Your task to perform on an android device: Clear the shopping cart on costco.com. Add "razer deathadder" to the cart on costco.com, then select checkout. Image 0: 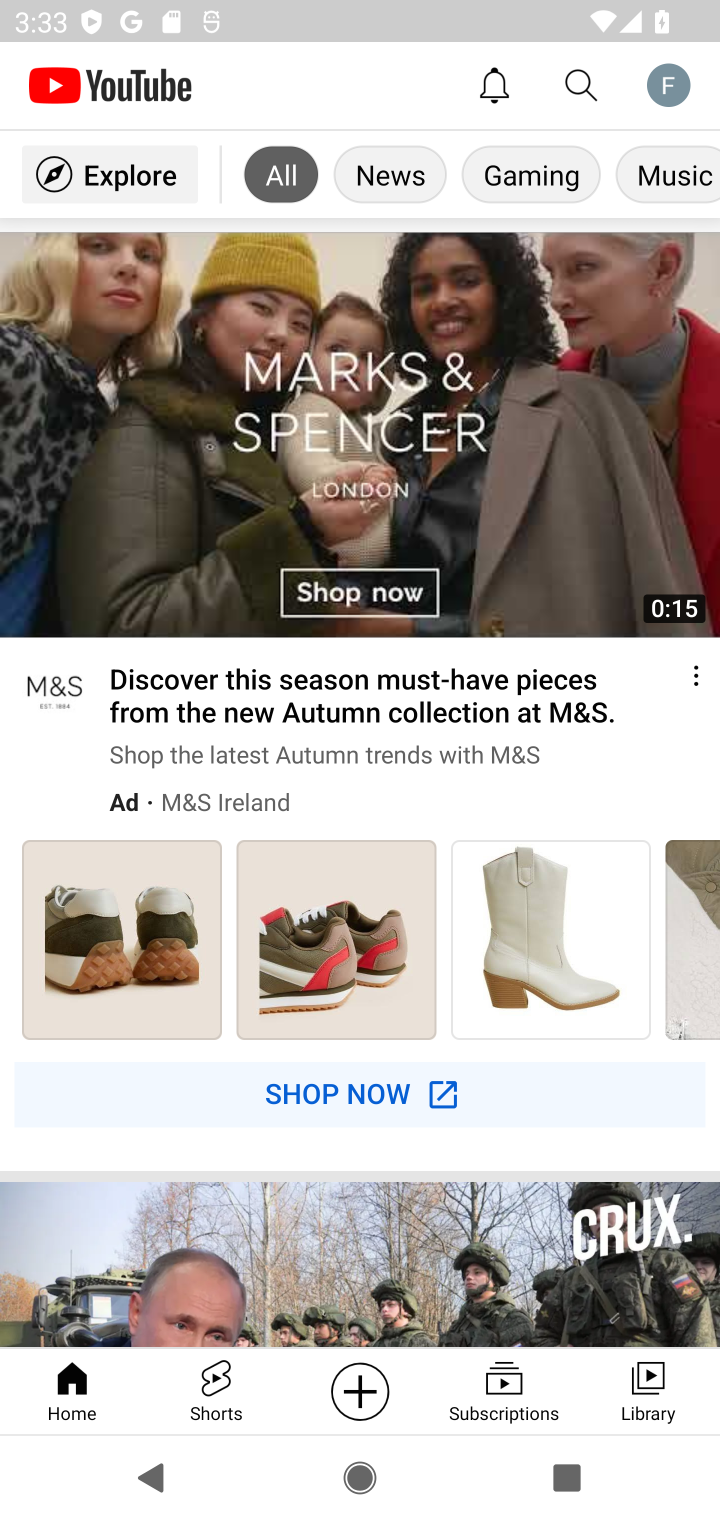
Step 0: press home button
Your task to perform on an android device: Clear the shopping cart on costco.com. Add "razer deathadder" to the cart on costco.com, then select checkout. Image 1: 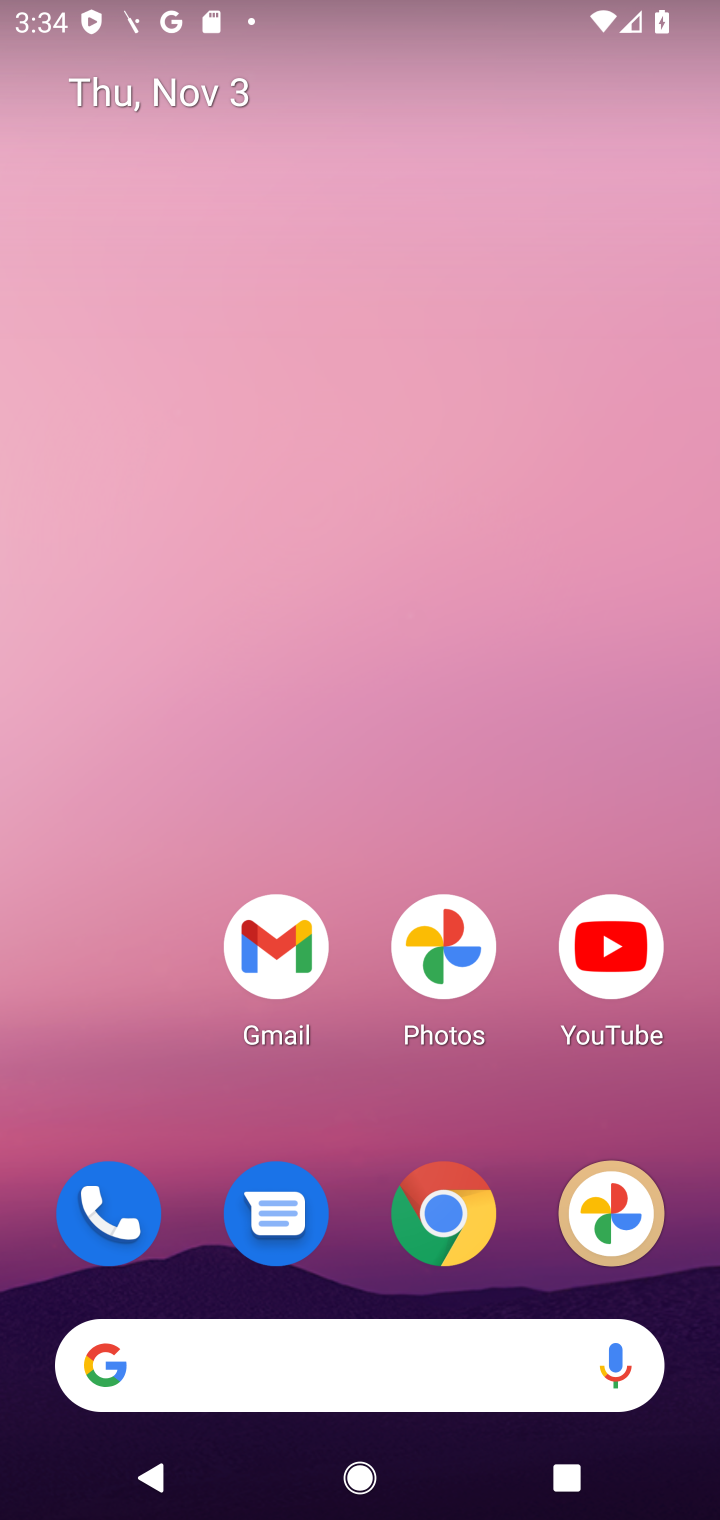
Step 1: click (464, 1198)
Your task to perform on an android device: Clear the shopping cart on costco.com. Add "razer deathadder" to the cart on costco.com, then select checkout. Image 2: 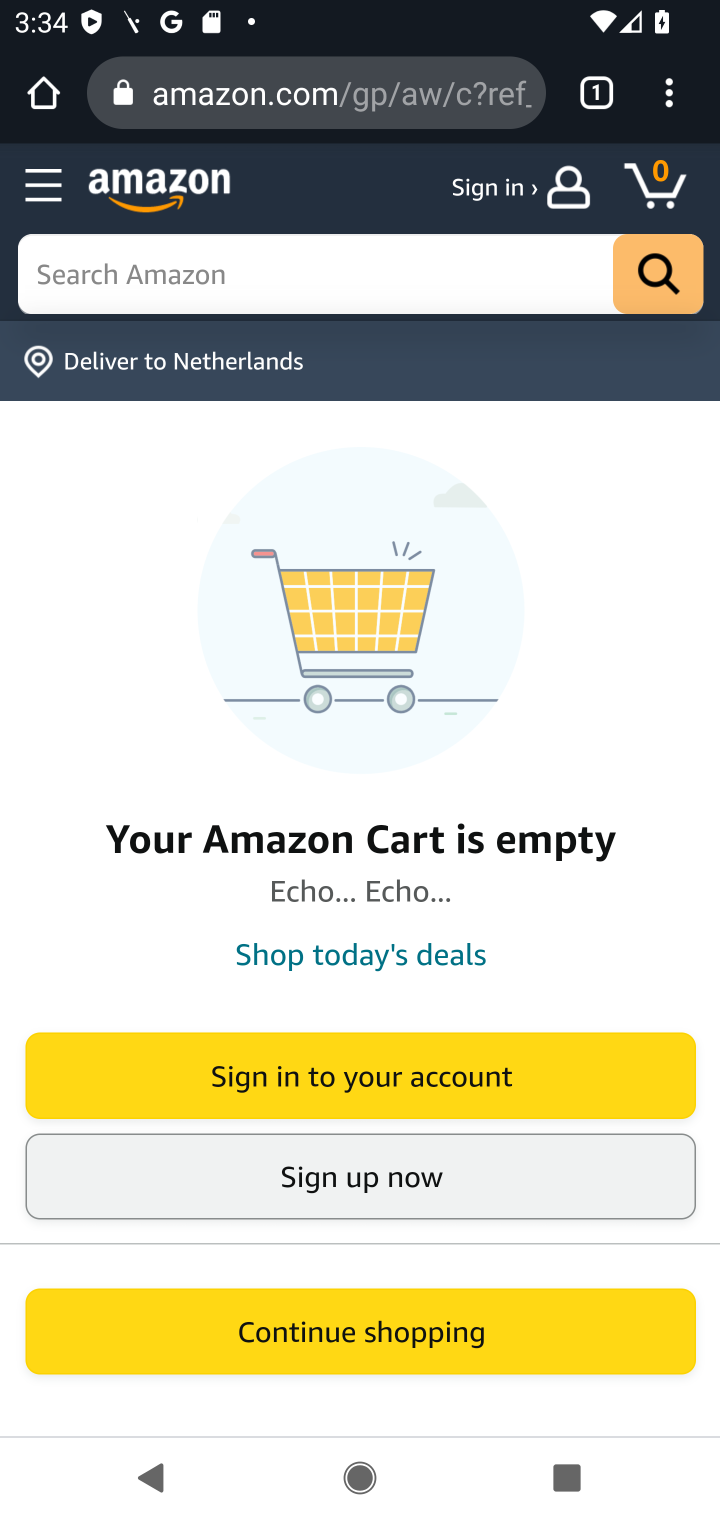
Step 2: click (274, 116)
Your task to perform on an android device: Clear the shopping cart on costco.com. Add "razer deathadder" to the cart on costco.com, then select checkout. Image 3: 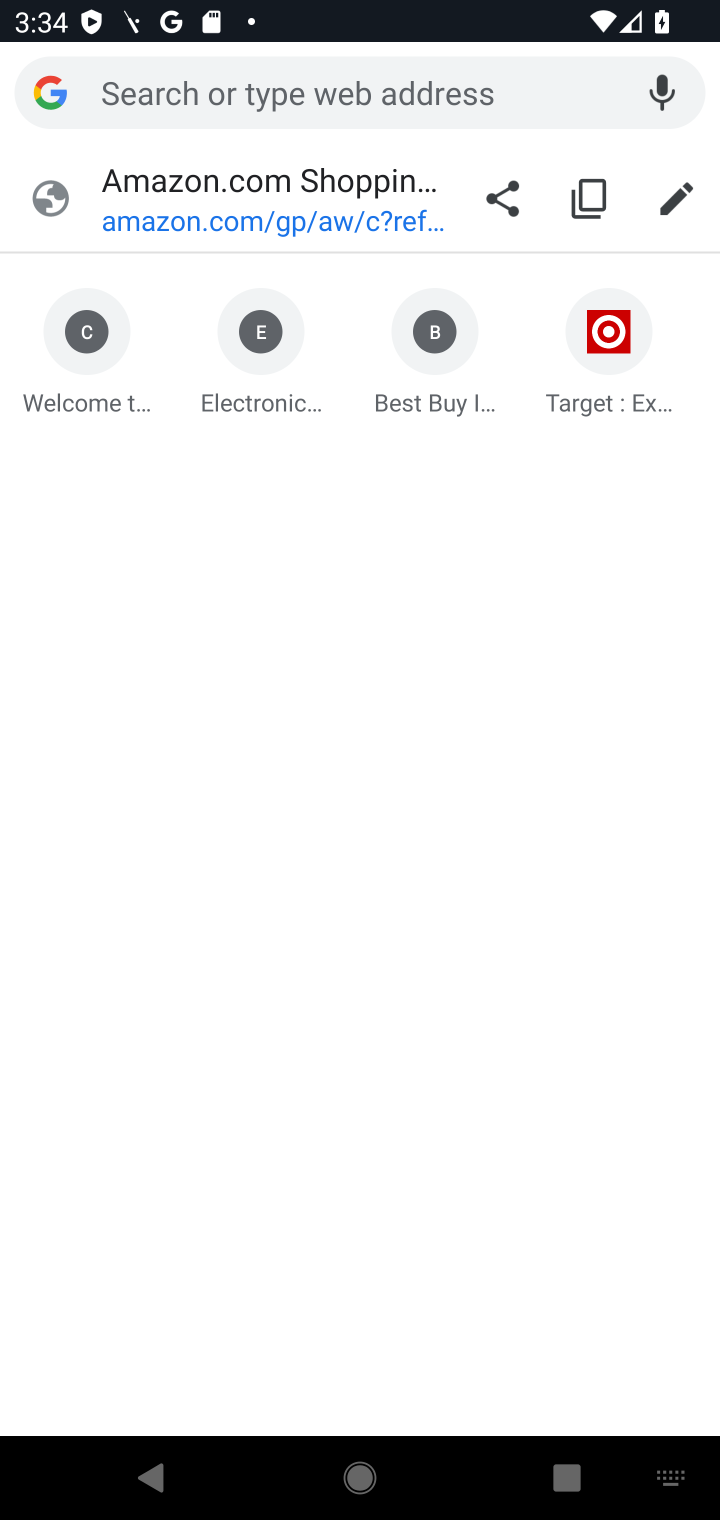
Step 3: type "costco.com"
Your task to perform on an android device: Clear the shopping cart on costco.com. Add "razer deathadder" to the cart on costco.com, then select checkout. Image 4: 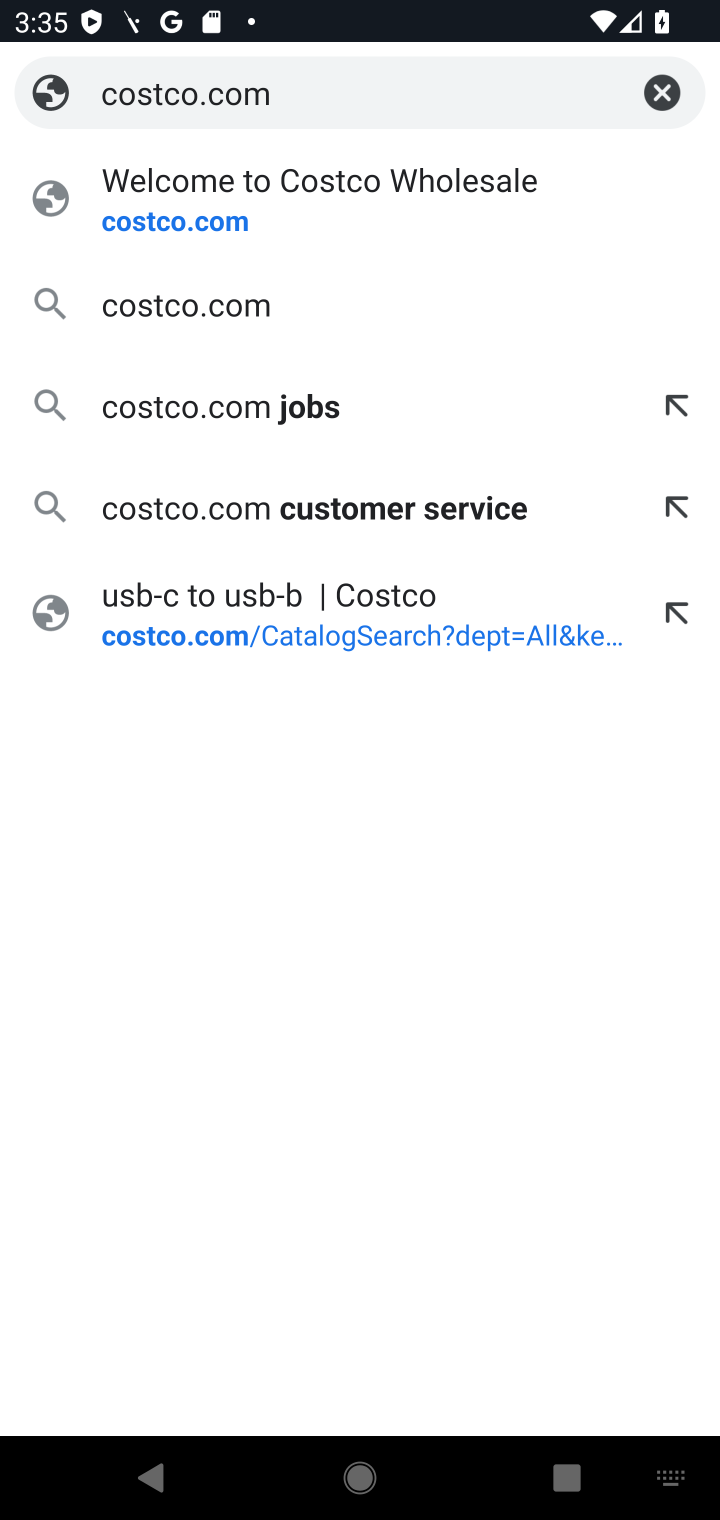
Step 4: click (208, 228)
Your task to perform on an android device: Clear the shopping cart on costco.com. Add "razer deathadder" to the cart on costco.com, then select checkout. Image 5: 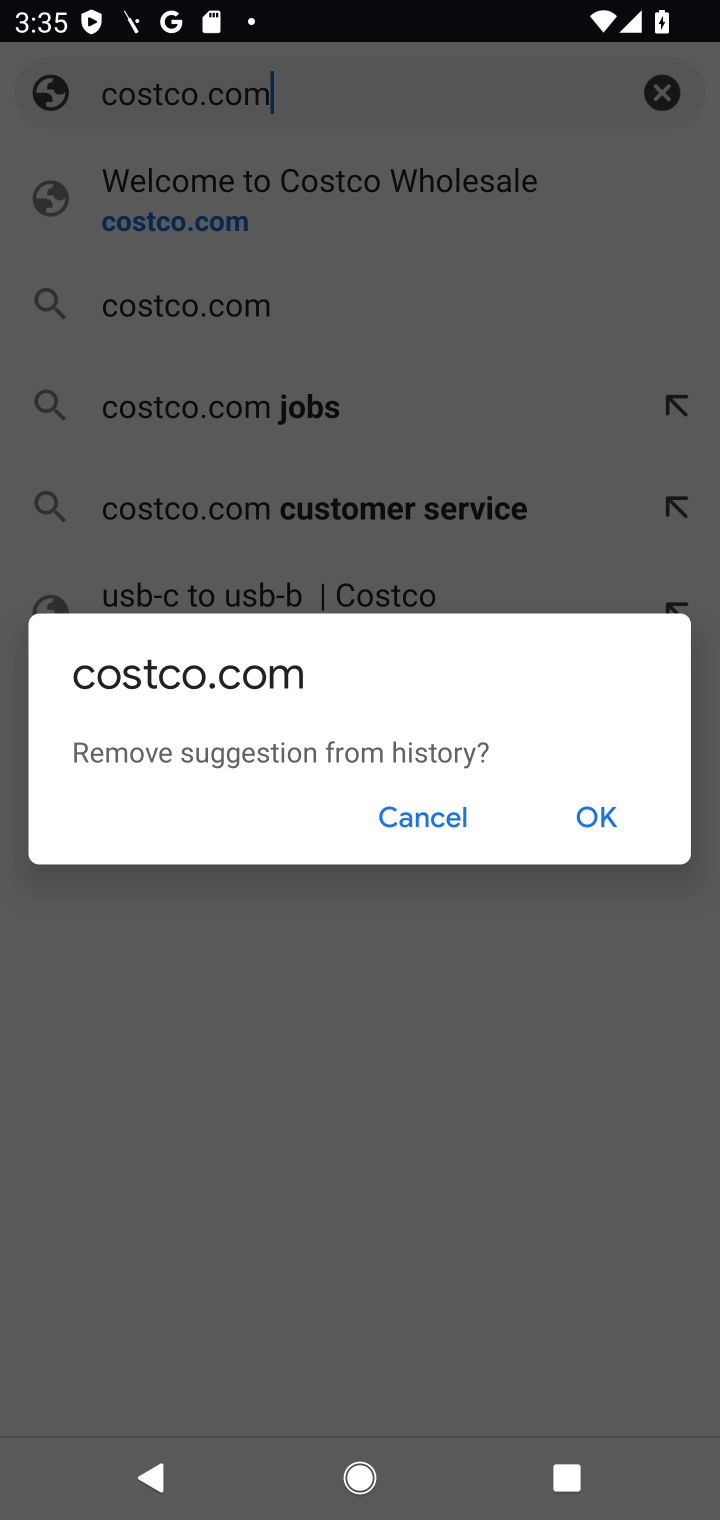
Step 5: click (440, 821)
Your task to perform on an android device: Clear the shopping cart on costco.com. Add "razer deathadder" to the cart on costco.com, then select checkout. Image 6: 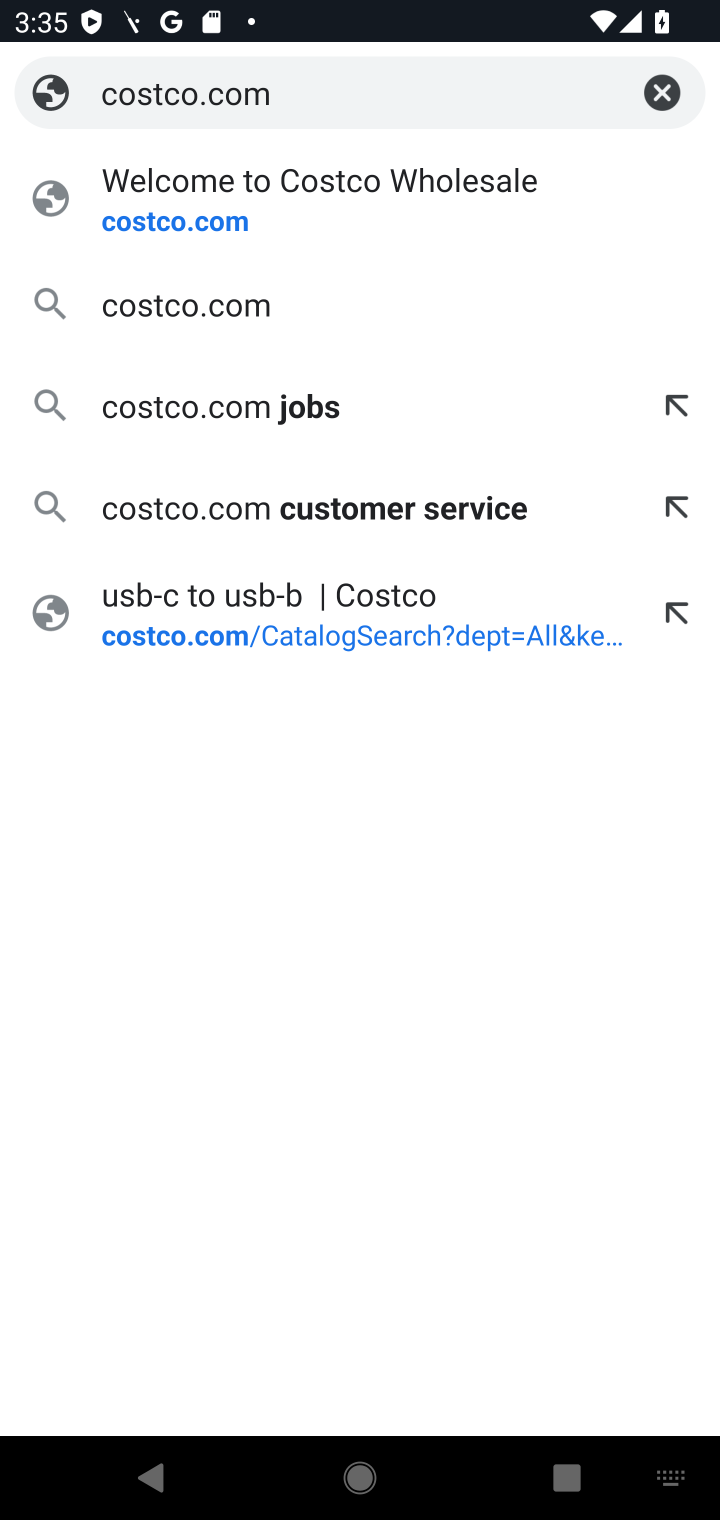
Step 6: click (164, 209)
Your task to perform on an android device: Clear the shopping cart on costco.com. Add "razer deathadder" to the cart on costco.com, then select checkout. Image 7: 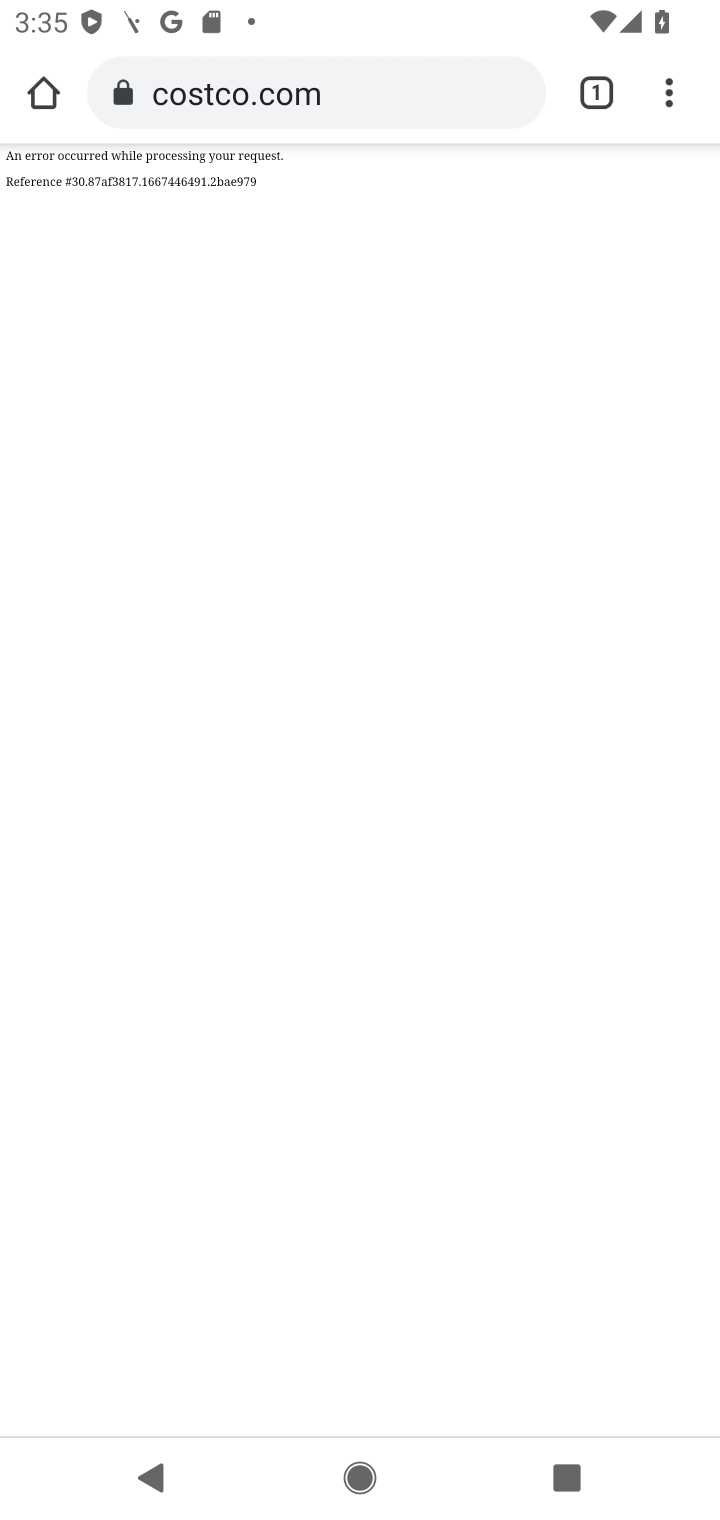
Step 7: press back button
Your task to perform on an android device: Clear the shopping cart on costco.com. Add "razer deathadder" to the cart on costco.com, then select checkout. Image 8: 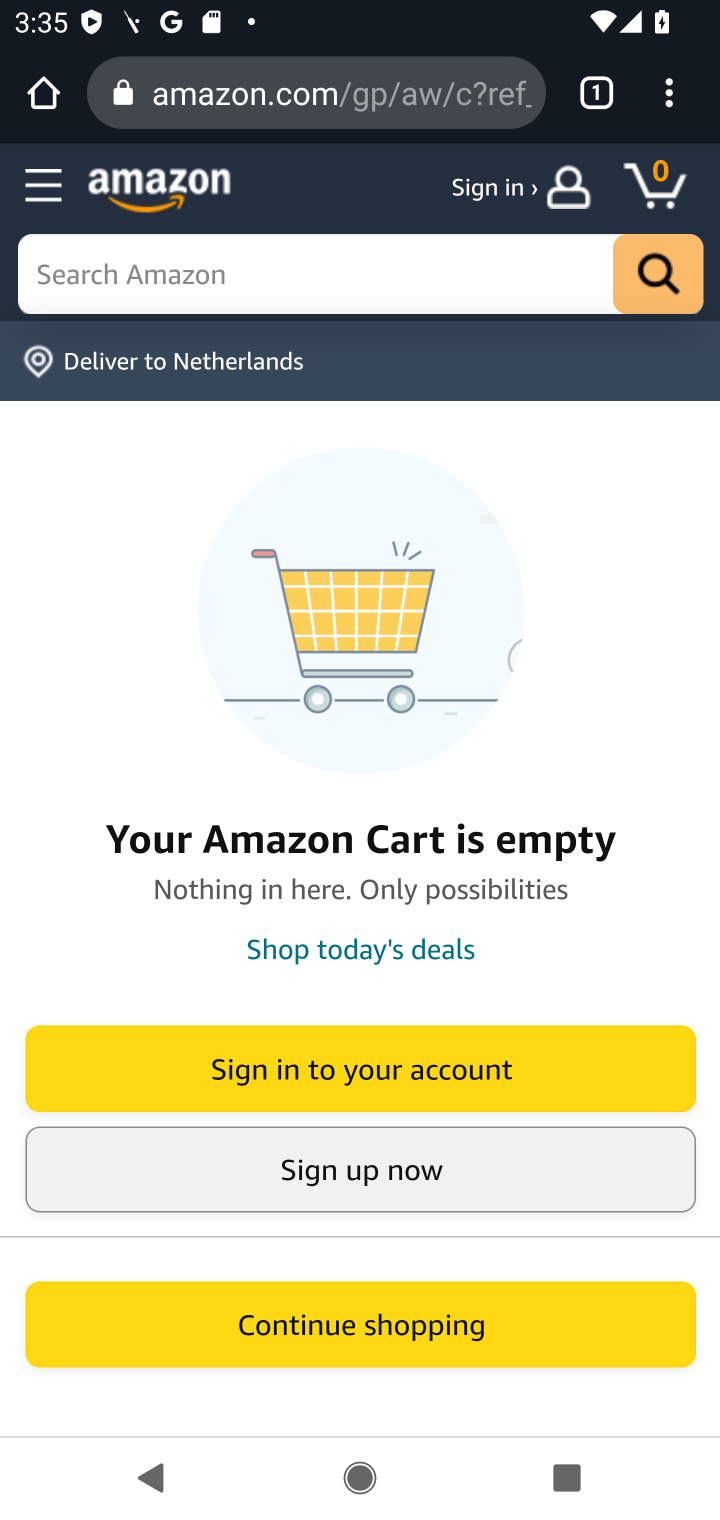
Step 8: click (261, 95)
Your task to perform on an android device: Clear the shopping cart on costco.com. Add "razer deathadder" to the cart on costco.com, then select checkout. Image 9: 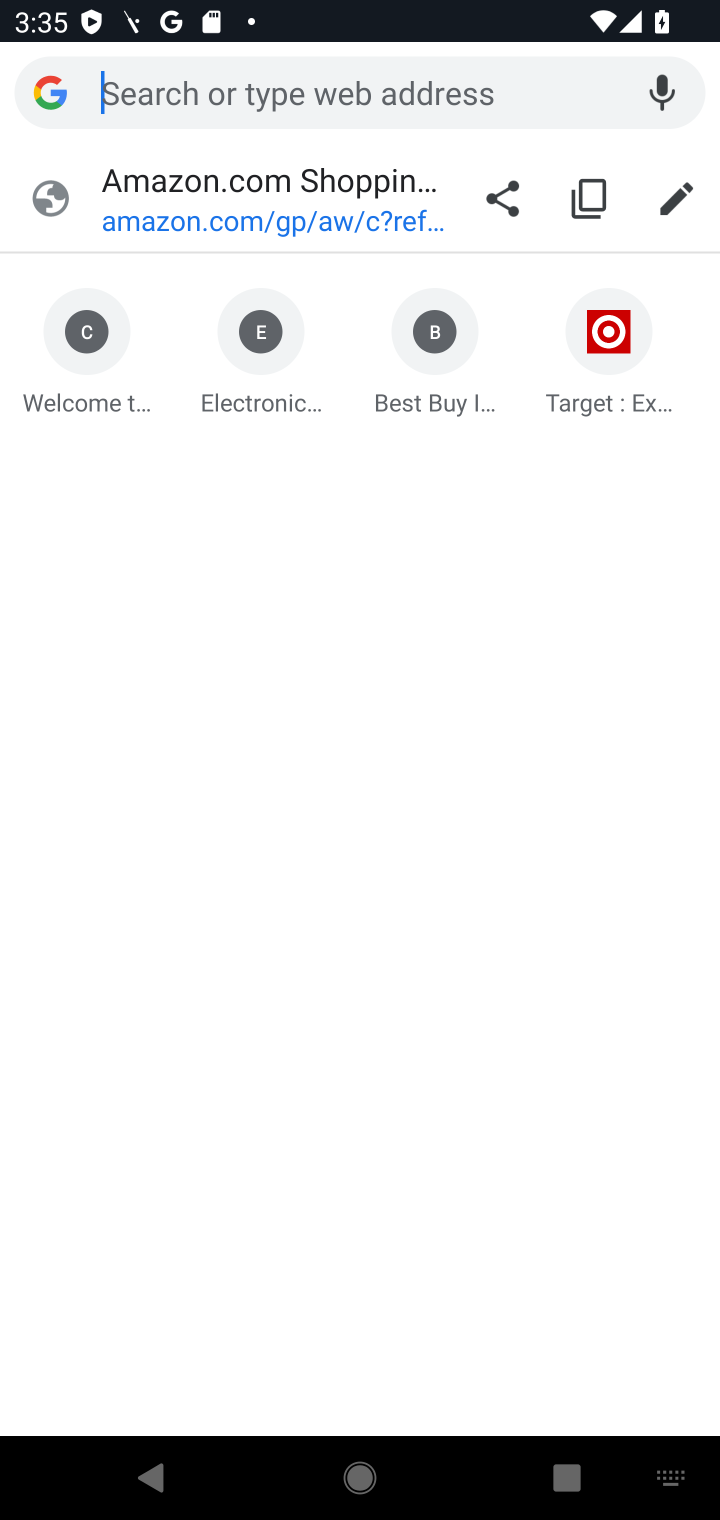
Step 9: type "costco.com"
Your task to perform on an android device: Clear the shopping cart on costco.com. Add "razer deathadder" to the cart on costco.com, then select checkout. Image 10: 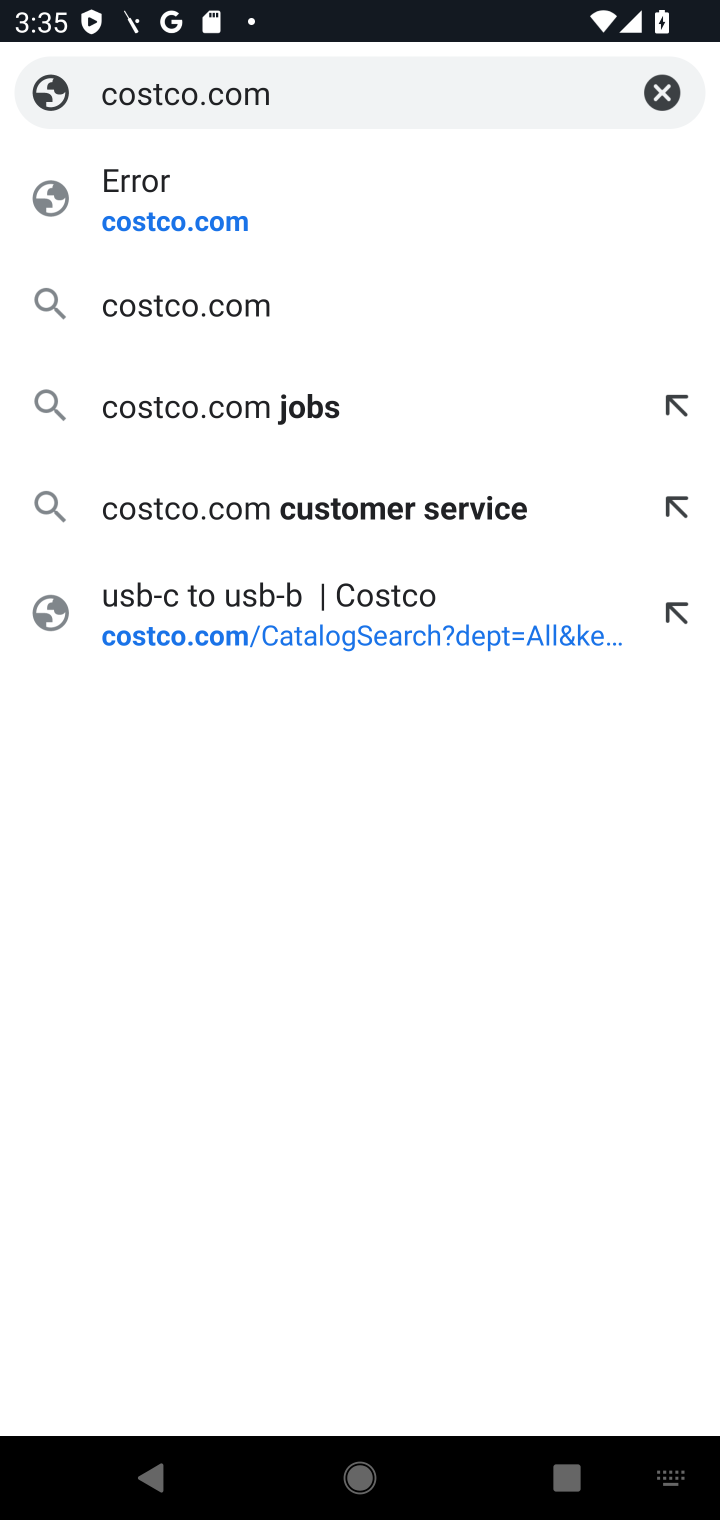
Step 10: click (203, 305)
Your task to perform on an android device: Clear the shopping cart on costco.com. Add "razer deathadder" to the cart on costco.com, then select checkout. Image 11: 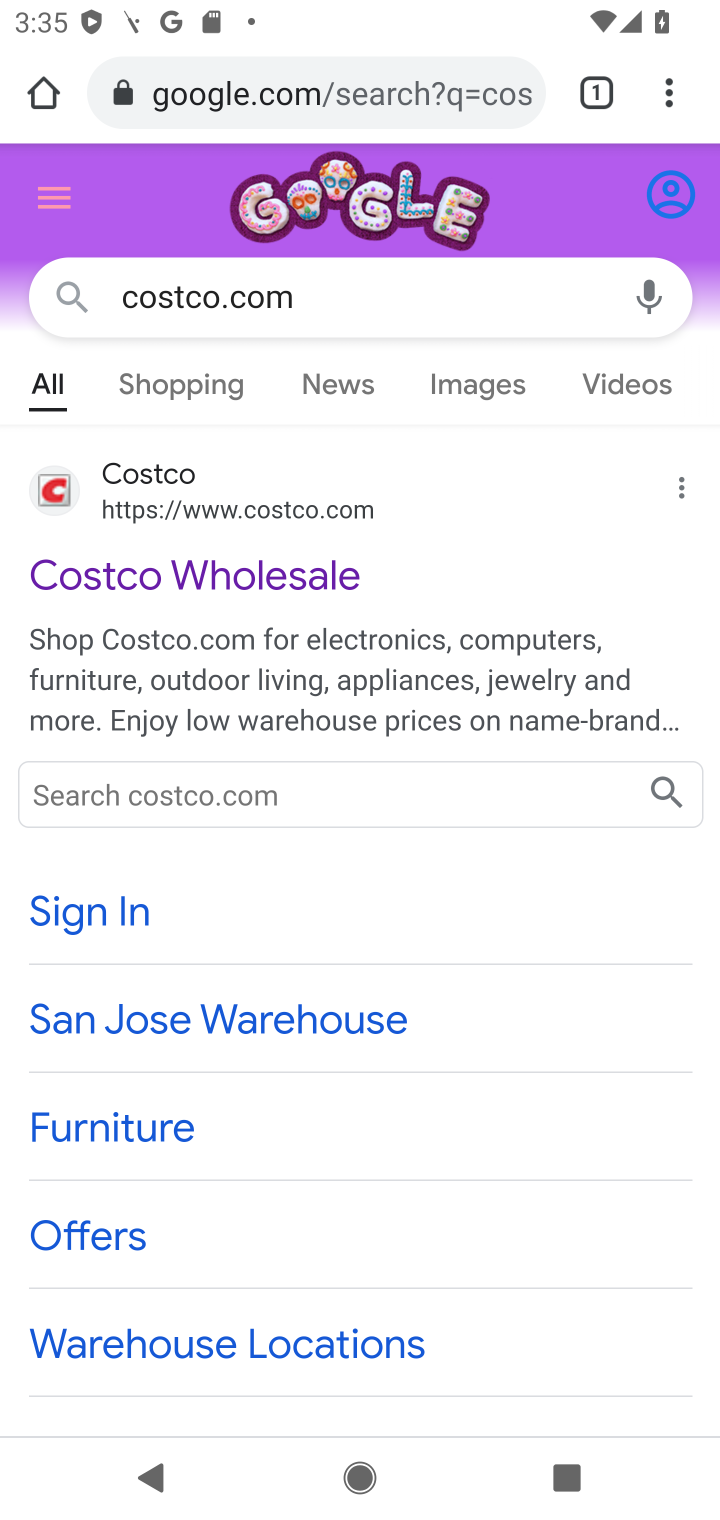
Step 11: click (140, 590)
Your task to perform on an android device: Clear the shopping cart on costco.com. Add "razer deathadder" to the cart on costco.com, then select checkout. Image 12: 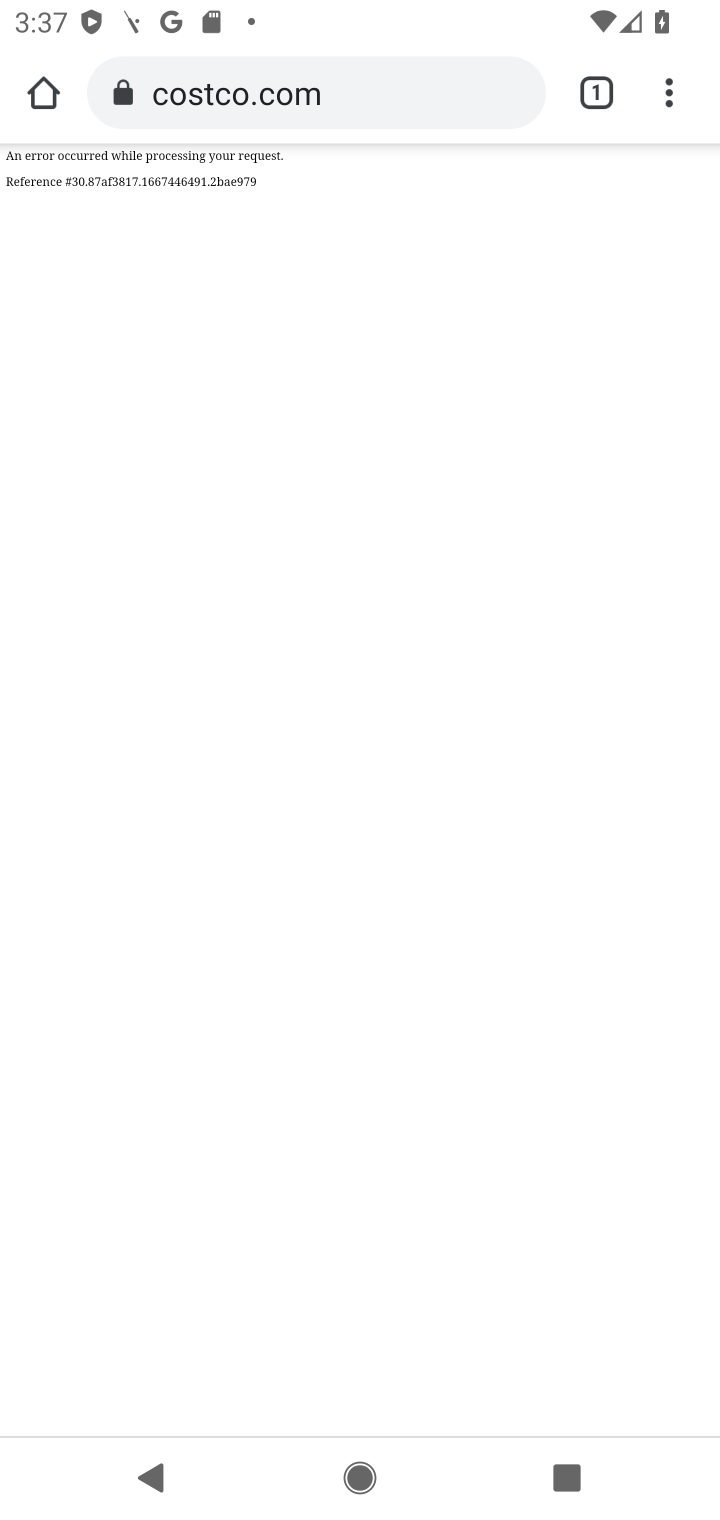
Step 12: task complete